Your task to perform on an android device: change text size in settings app Image 0: 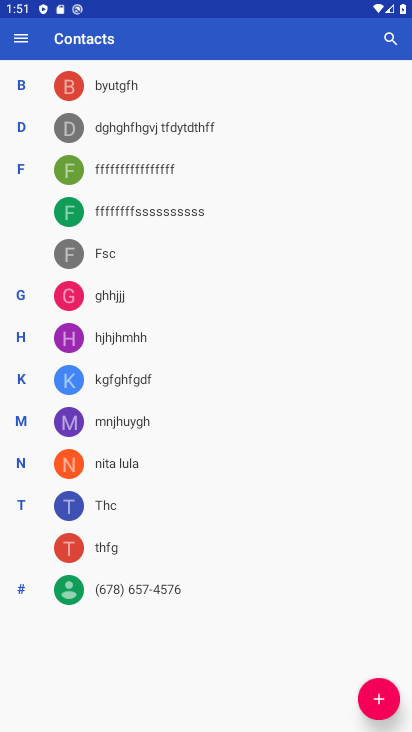
Step 0: press home button
Your task to perform on an android device: change text size in settings app Image 1: 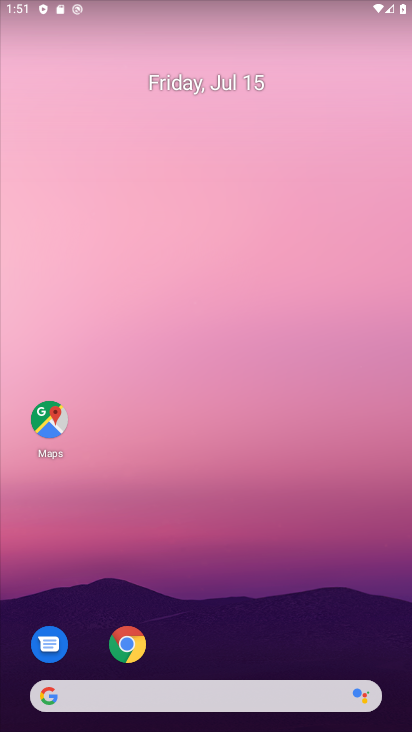
Step 1: drag from (55, 563) to (289, 54)
Your task to perform on an android device: change text size in settings app Image 2: 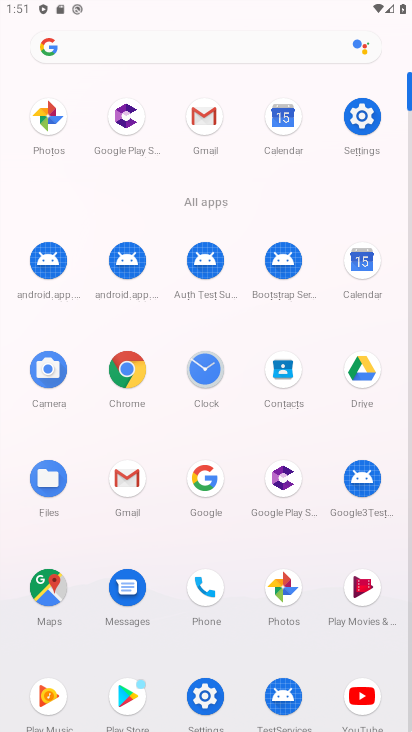
Step 2: click (209, 691)
Your task to perform on an android device: change text size in settings app Image 3: 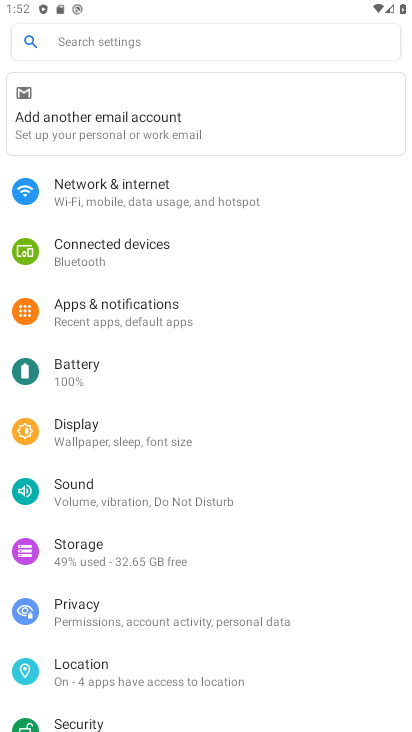
Step 3: drag from (325, 570) to (354, 333)
Your task to perform on an android device: change text size in settings app Image 4: 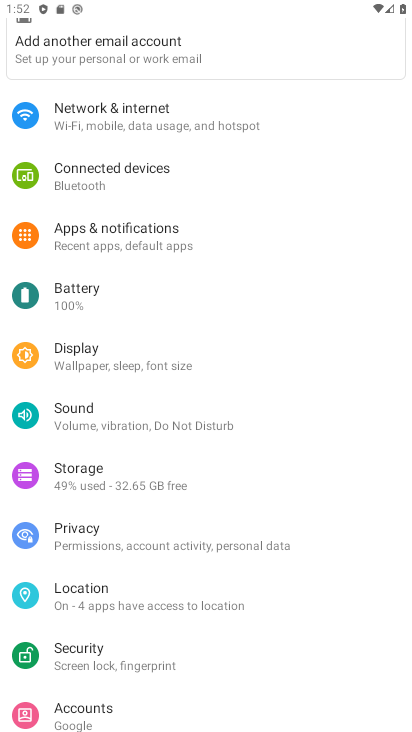
Step 4: drag from (300, 585) to (311, 391)
Your task to perform on an android device: change text size in settings app Image 5: 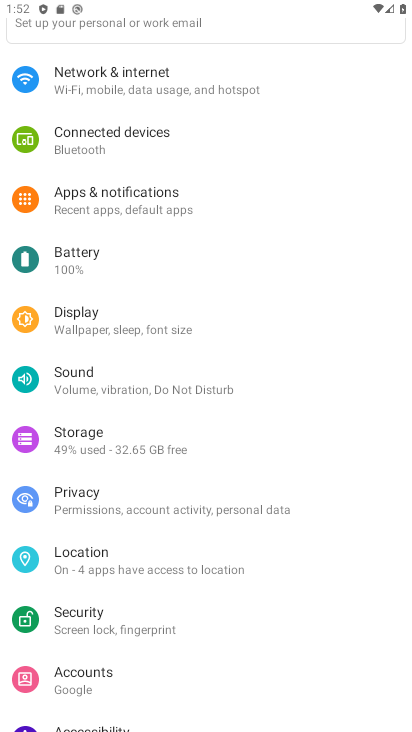
Step 5: drag from (279, 667) to (325, 284)
Your task to perform on an android device: change text size in settings app Image 6: 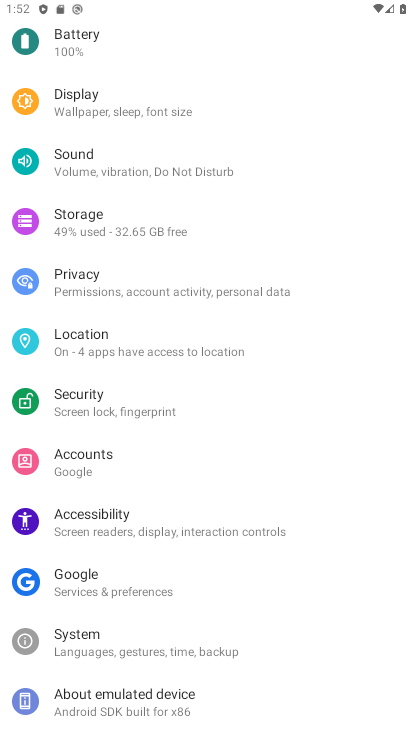
Step 6: drag from (286, 230) to (282, 635)
Your task to perform on an android device: change text size in settings app Image 7: 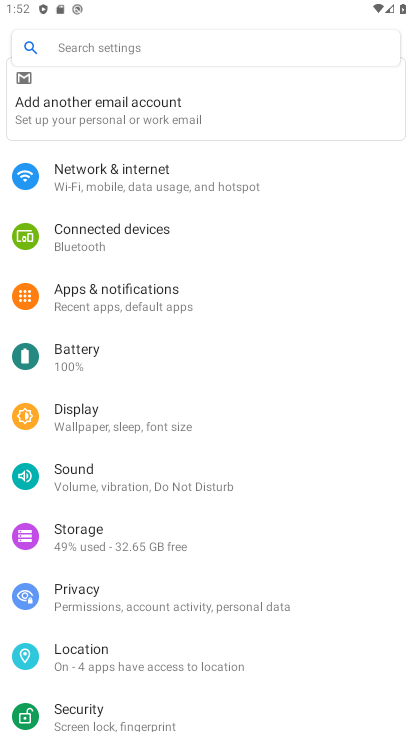
Step 7: click (130, 437)
Your task to perform on an android device: change text size in settings app Image 8: 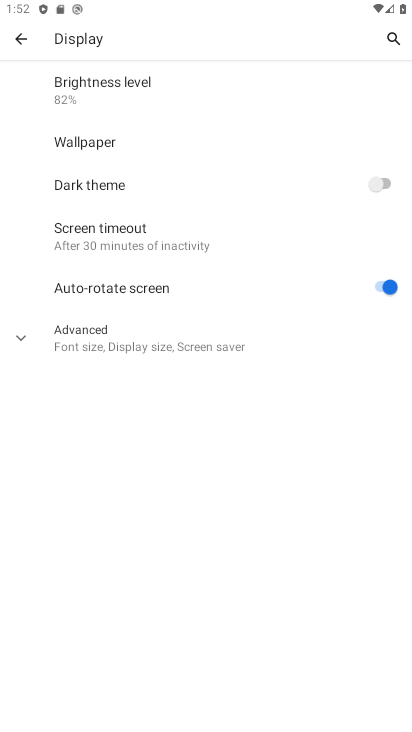
Step 8: click (134, 344)
Your task to perform on an android device: change text size in settings app Image 9: 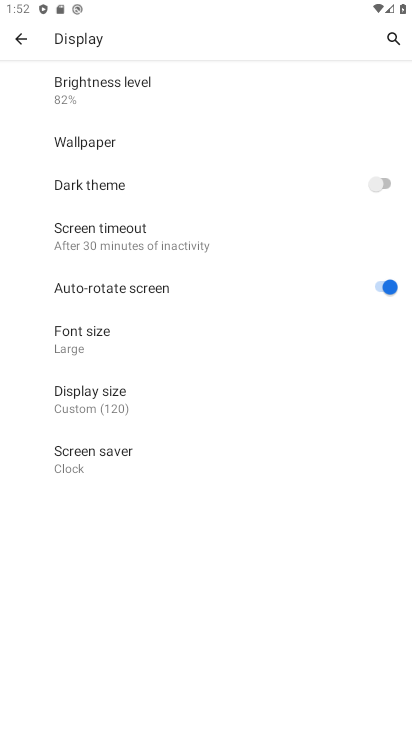
Step 9: click (102, 317)
Your task to perform on an android device: change text size in settings app Image 10: 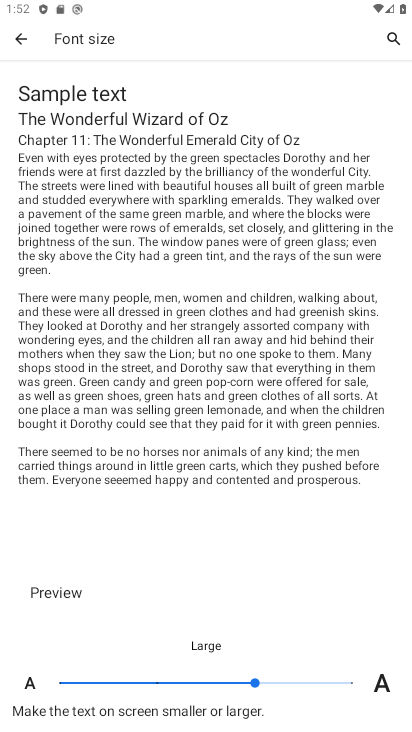
Step 10: click (250, 680)
Your task to perform on an android device: change text size in settings app Image 11: 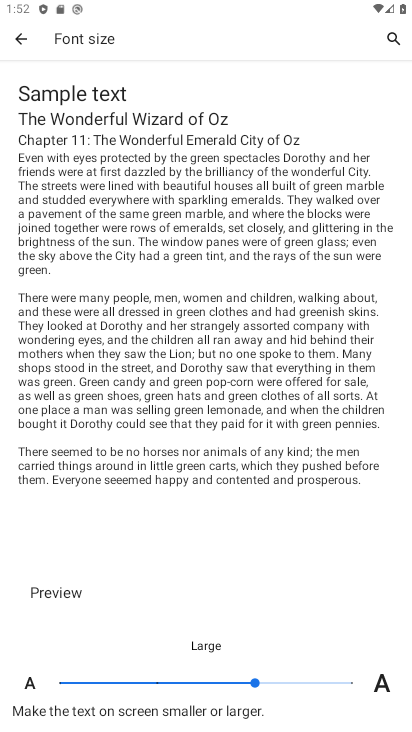
Step 11: click (246, 683)
Your task to perform on an android device: change text size in settings app Image 12: 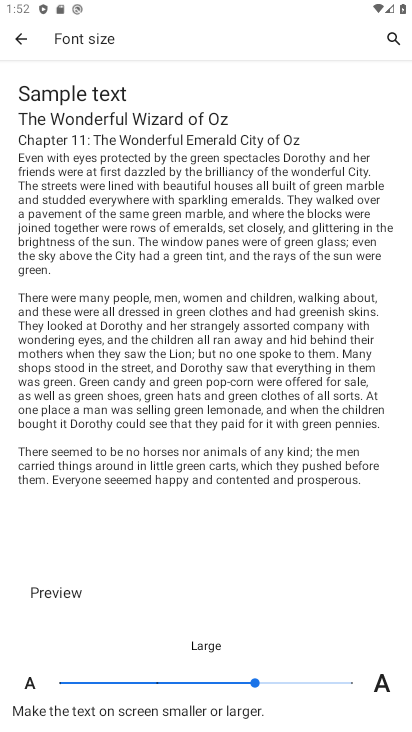
Step 12: click (261, 683)
Your task to perform on an android device: change text size in settings app Image 13: 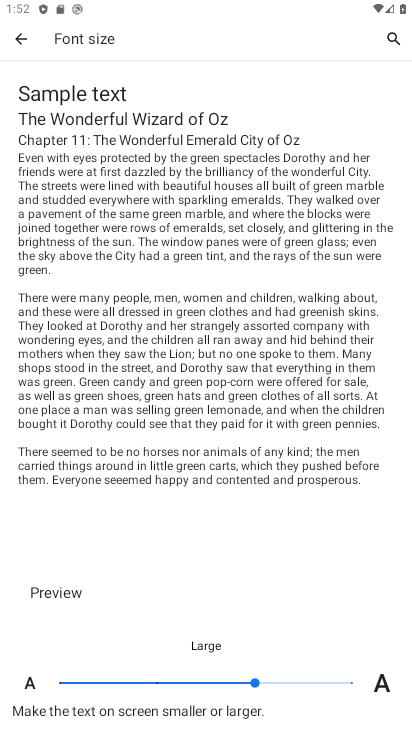
Step 13: click (268, 675)
Your task to perform on an android device: change text size in settings app Image 14: 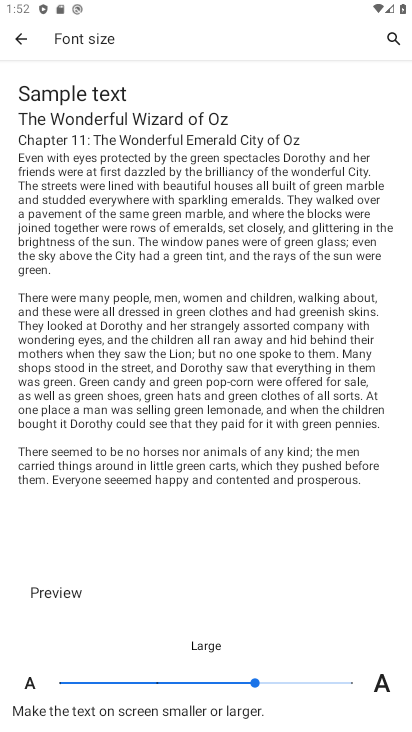
Step 14: click (262, 680)
Your task to perform on an android device: change text size in settings app Image 15: 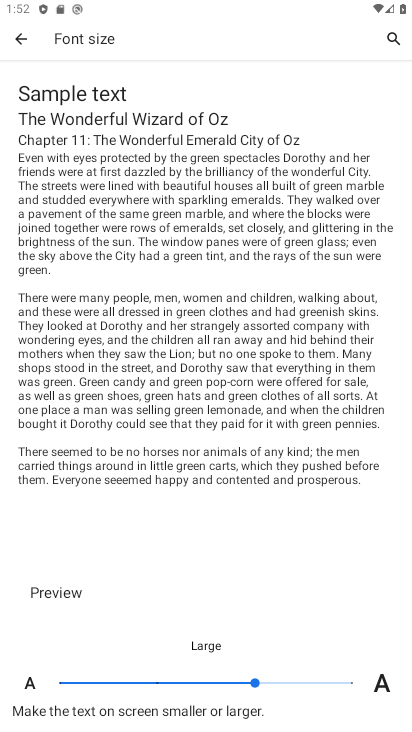
Step 15: task complete